Your task to perform on an android device: Show me popular videos on Youtube Image 0: 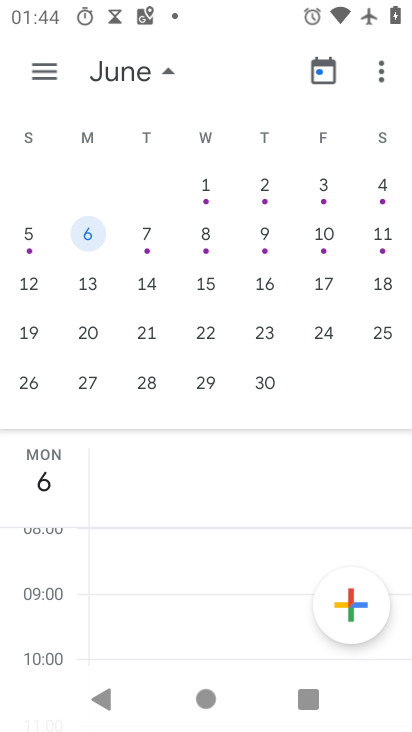
Step 0: press home button
Your task to perform on an android device: Show me popular videos on Youtube Image 1: 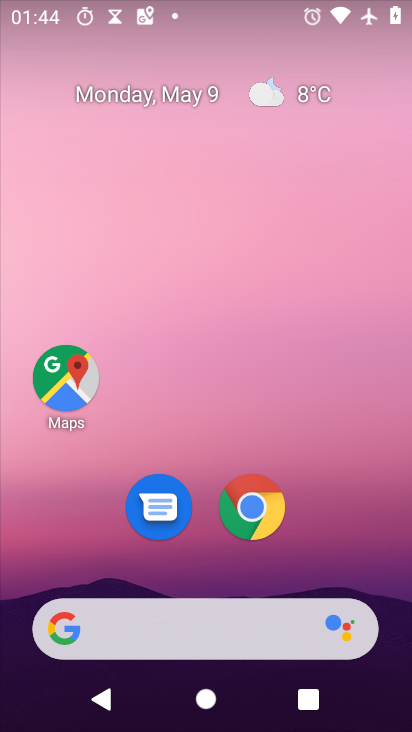
Step 1: drag from (230, 729) to (224, 243)
Your task to perform on an android device: Show me popular videos on Youtube Image 2: 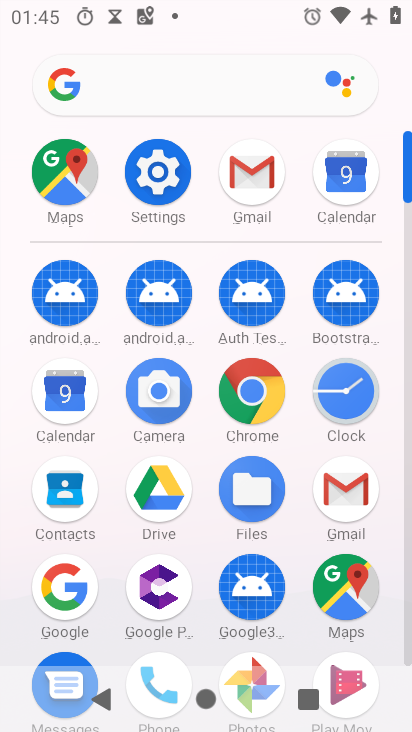
Step 2: drag from (295, 662) to (271, 145)
Your task to perform on an android device: Show me popular videos on Youtube Image 3: 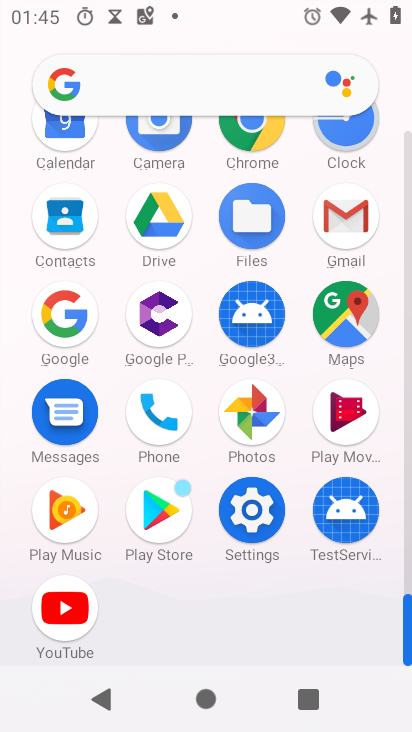
Step 3: click (69, 610)
Your task to perform on an android device: Show me popular videos on Youtube Image 4: 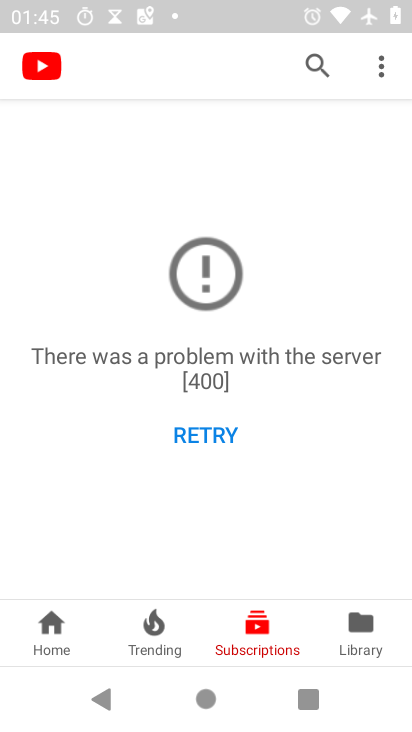
Step 4: task complete